Your task to perform on an android device: toggle sleep mode Image 0: 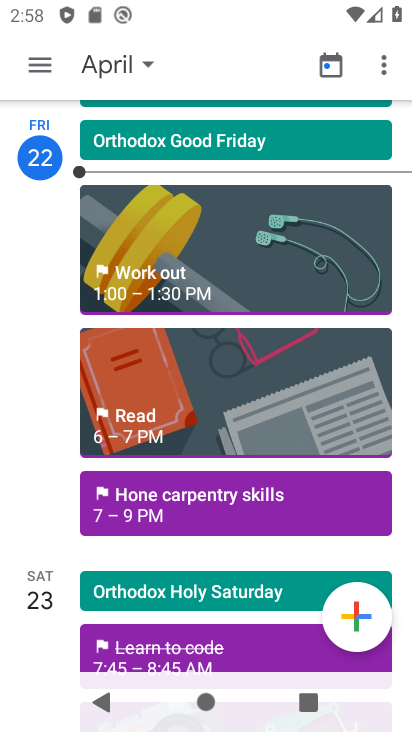
Step 0: press home button
Your task to perform on an android device: toggle sleep mode Image 1: 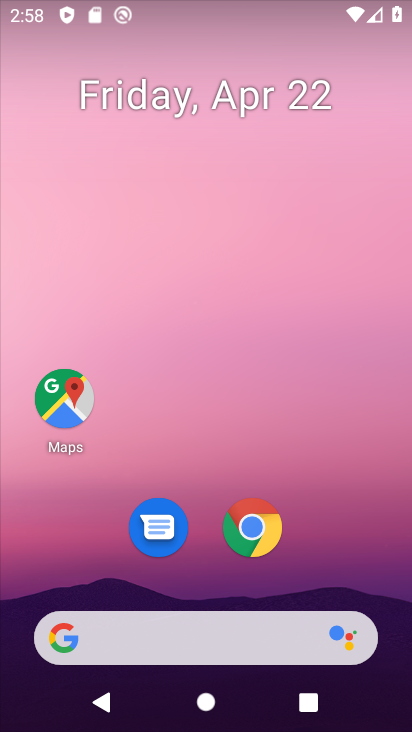
Step 1: drag from (389, 613) to (288, 39)
Your task to perform on an android device: toggle sleep mode Image 2: 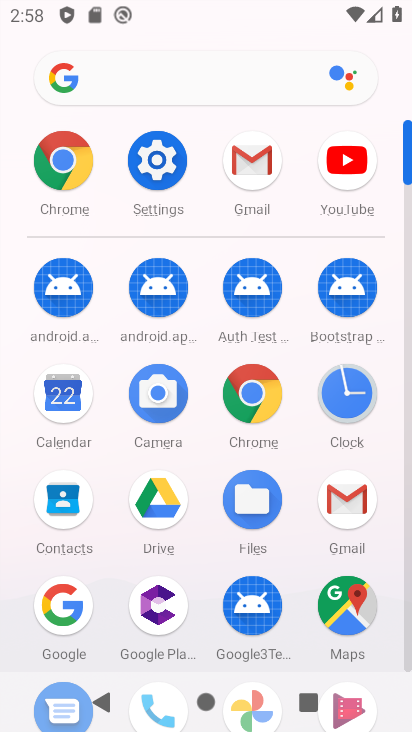
Step 2: click (161, 153)
Your task to perform on an android device: toggle sleep mode Image 3: 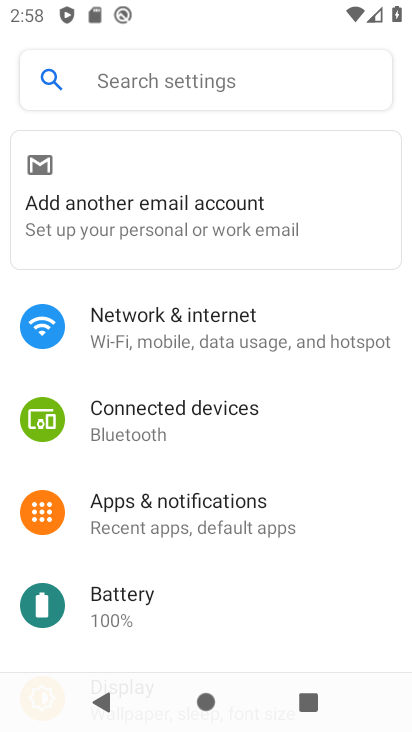
Step 3: task complete